Your task to perform on an android device: What's on my calendar tomorrow? Image 0: 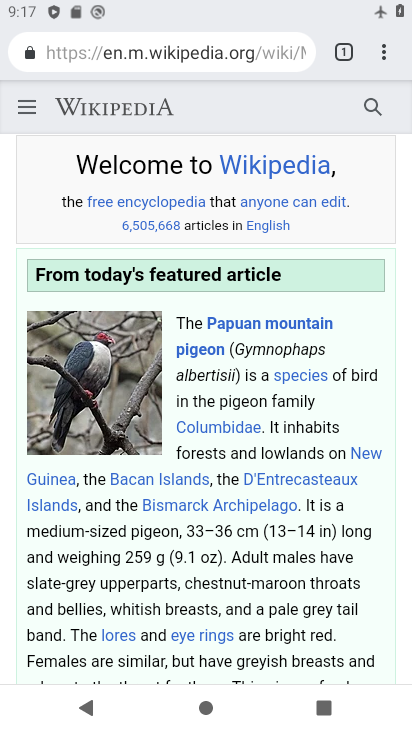
Step 0: press home button
Your task to perform on an android device: What's on my calendar tomorrow? Image 1: 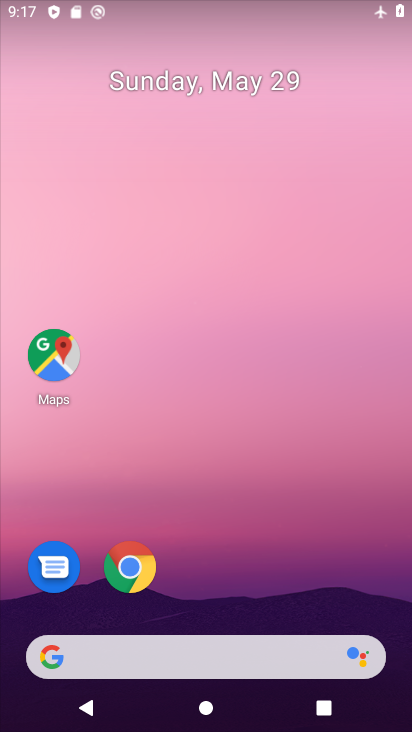
Step 1: drag from (387, 624) to (316, 1)
Your task to perform on an android device: What's on my calendar tomorrow? Image 2: 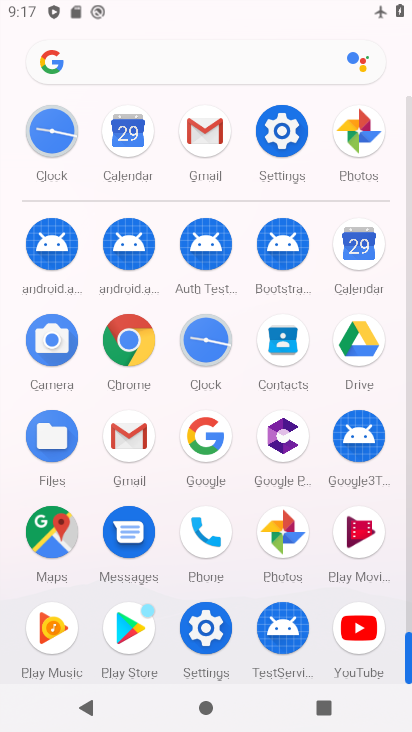
Step 2: click (358, 246)
Your task to perform on an android device: What's on my calendar tomorrow? Image 3: 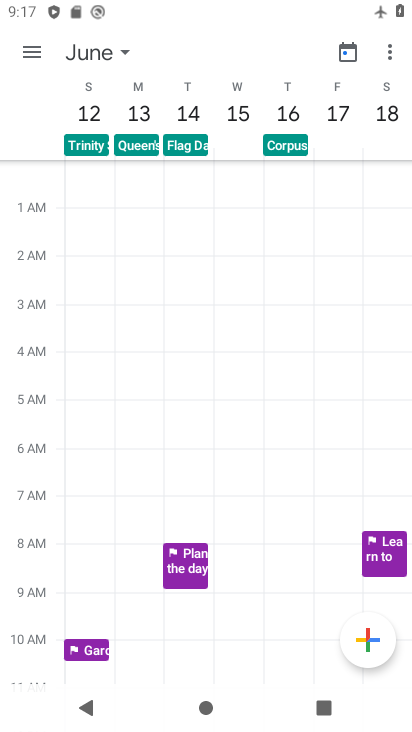
Step 3: click (21, 46)
Your task to perform on an android device: What's on my calendar tomorrow? Image 4: 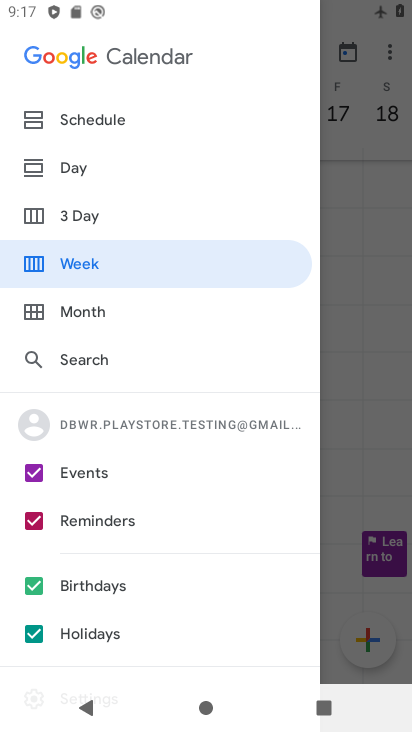
Step 4: click (77, 172)
Your task to perform on an android device: What's on my calendar tomorrow? Image 5: 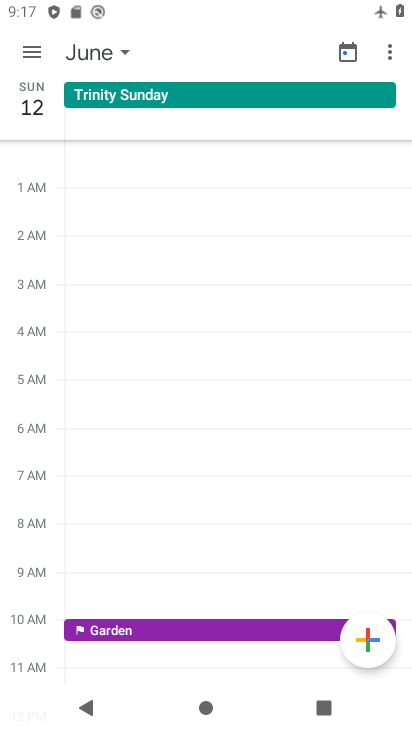
Step 5: click (123, 51)
Your task to perform on an android device: What's on my calendar tomorrow? Image 6: 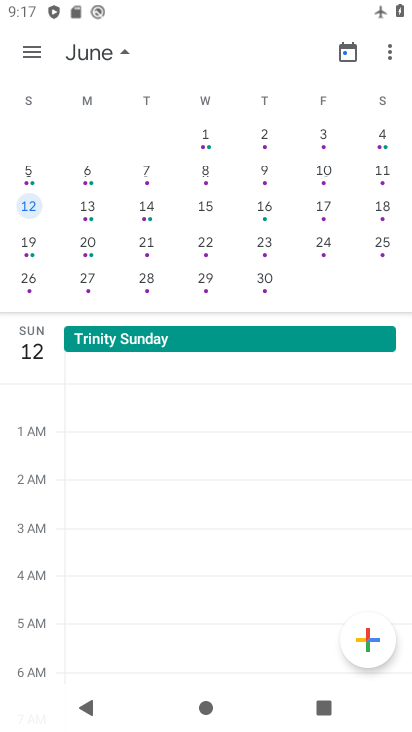
Step 6: drag from (28, 255) to (384, 241)
Your task to perform on an android device: What's on my calendar tomorrow? Image 7: 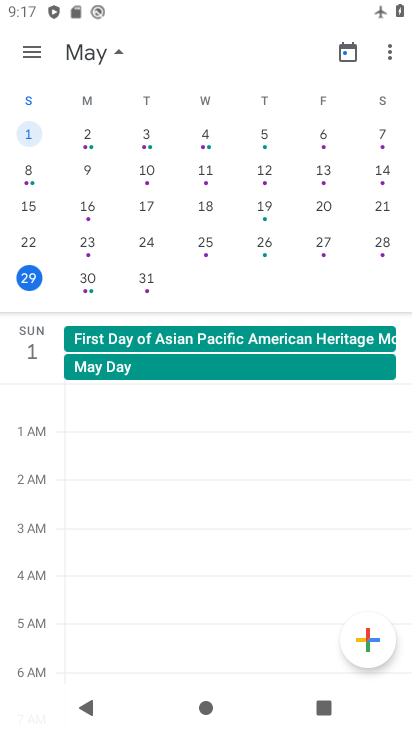
Step 7: click (82, 282)
Your task to perform on an android device: What's on my calendar tomorrow? Image 8: 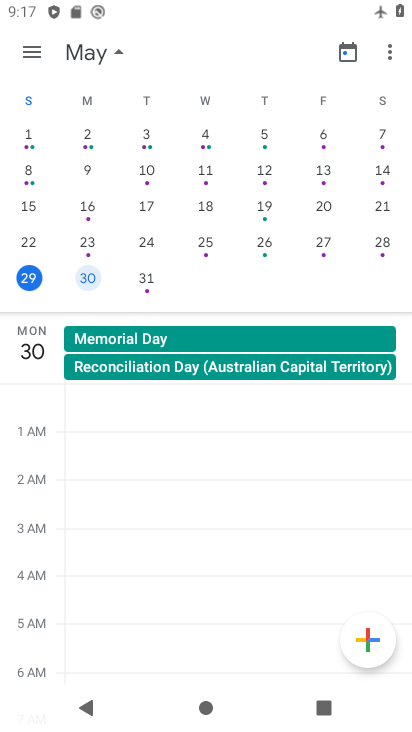
Step 8: task complete